Your task to perform on an android device: Turn on the flashlight Image 0: 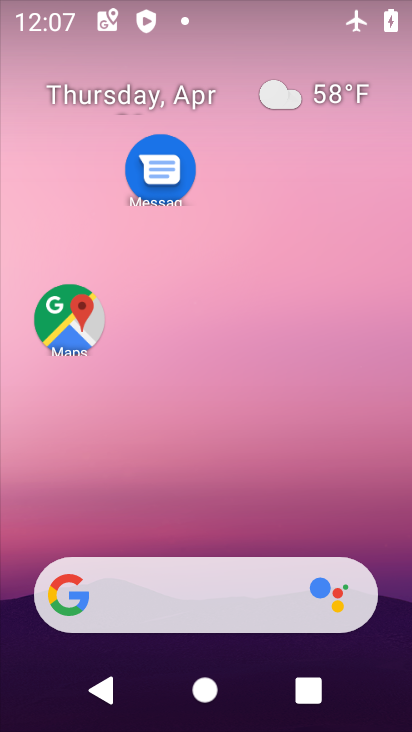
Step 0: click (318, 0)
Your task to perform on an android device: Turn on the flashlight Image 1: 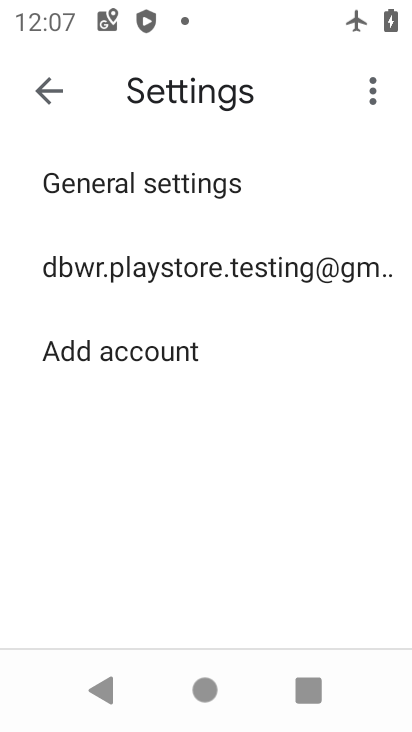
Step 1: press home button
Your task to perform on an android device: Turn on the flashlight Image 2: 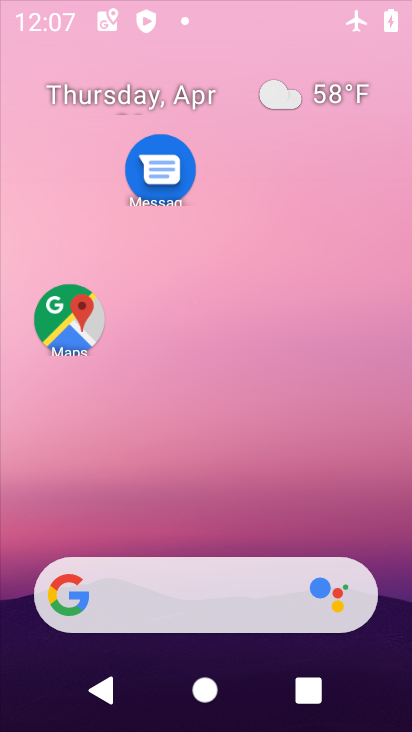
Step 2: drag from (165, 573) to (330, 130)
Your task to perform on an android device: Turn on the flashlight Image 3: 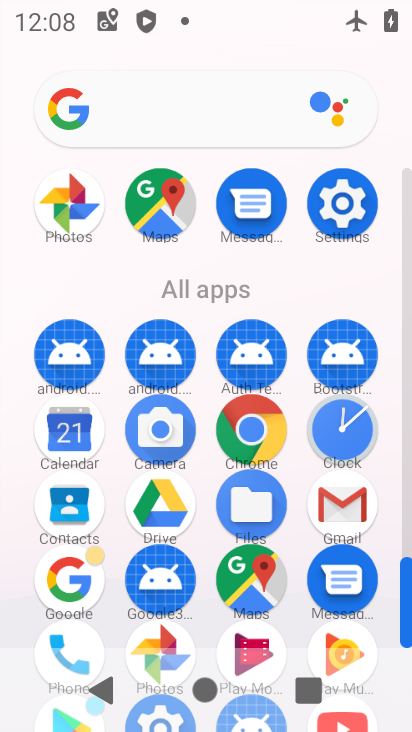
Step 3: click (346, 191)
Your task to perform on an android device: Turn on the flashlight Image 4: 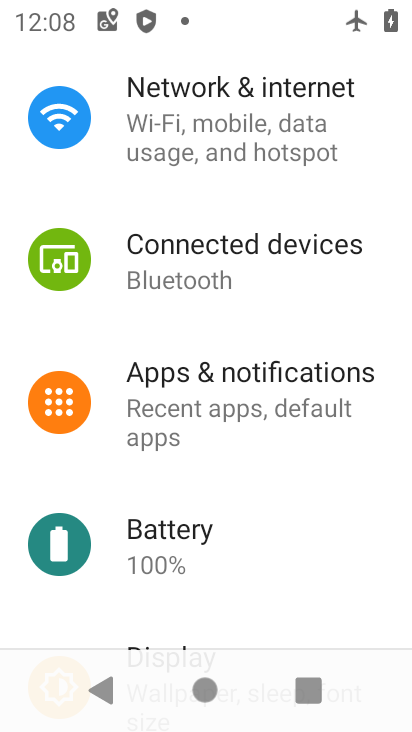
Step 4: drag from (276, 180) to (327, 594)
Your task to perform on an android device: Turn on the flashlight Image 5: 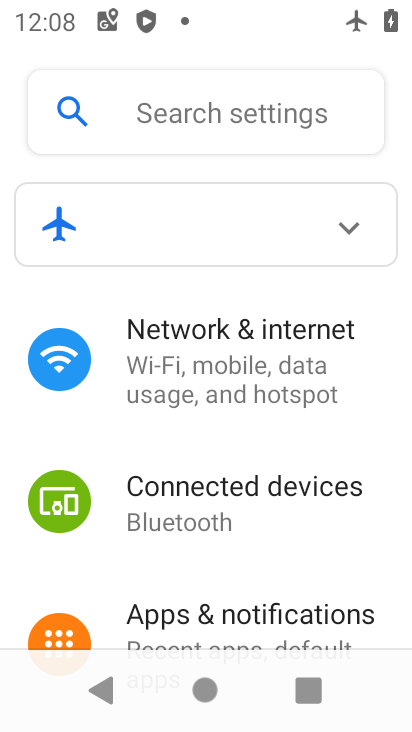
Step 5: click (236, 373)
Your task to perform on an android device: Turn on the flashlight Image 6: 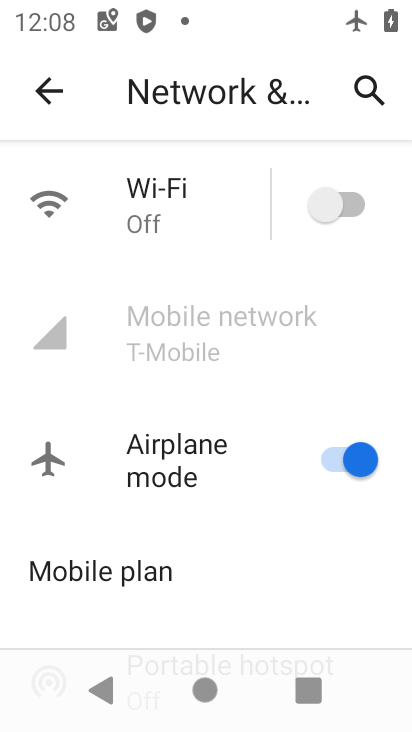
Step 6: task complete